Your task to perform on an android device: Open network settings Image 0: 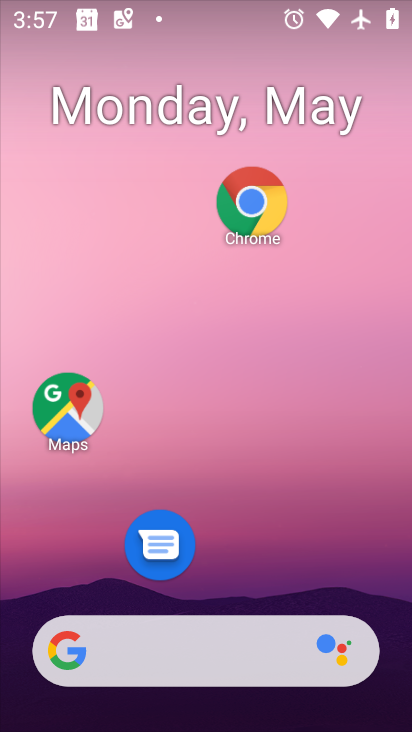
Step 0: drag from (231, 486) to (225, 111)
Your task to perform on an android device: Open network settings Image 1: 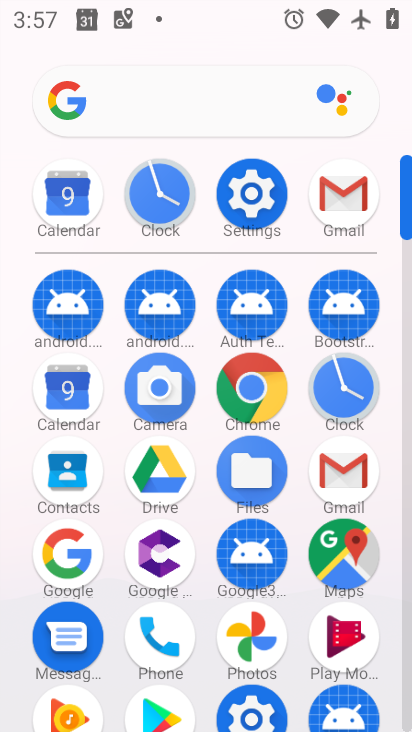
Step 1: click (226, 199)
Your task to perform on an android device: Open network settings Image 2: 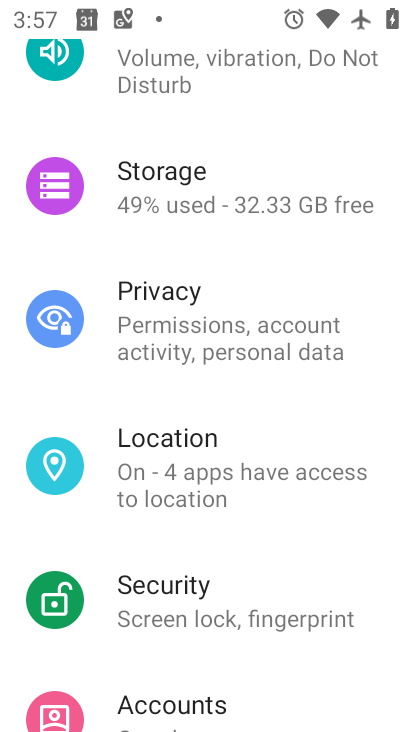
Step 2: drag from (231, 241) to (265, 610)
Your task to perform on an android device: Open network settings Image 3: 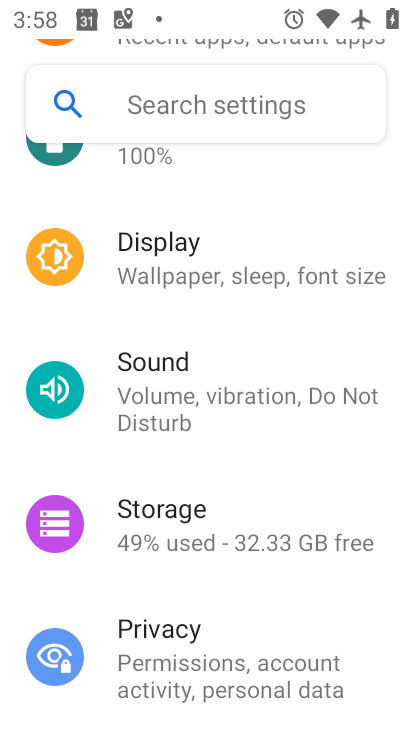
Step 3: drag from (252, 207) to (252, 558)
Your task to perform on an android device: Open network settings Image 4: 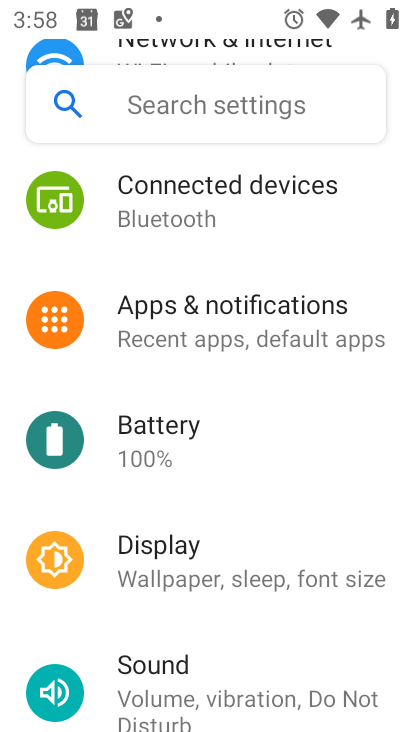
Step 4: drag from (196, 209) to (212, 506)
Your task to perform on an android device: Open network settings Image 5: 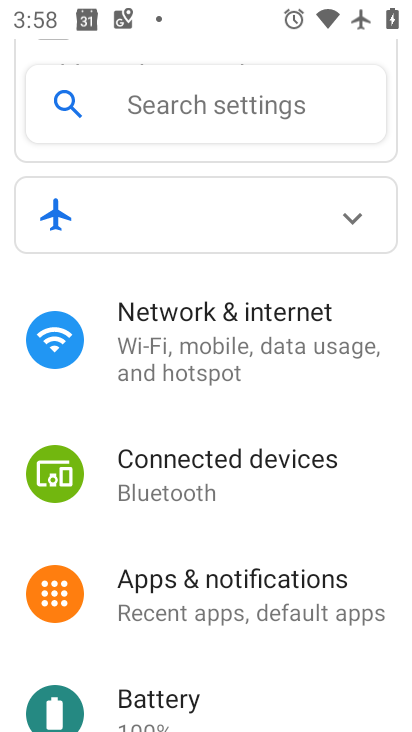
Step 5: click (182, 364)
Your task to perform on an android device: Open network settings Image 6: 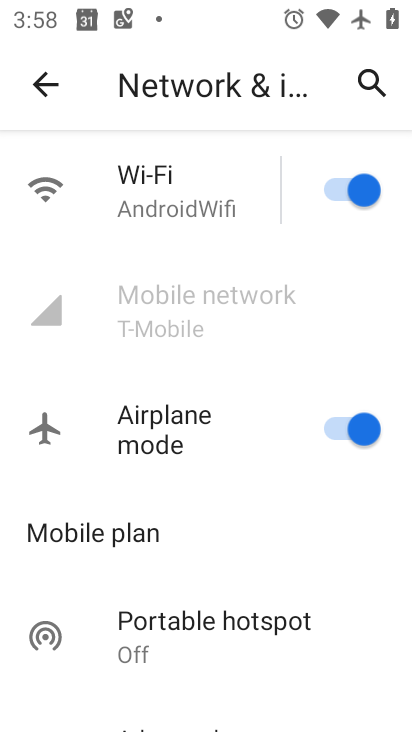
Step 6: drag from (192, 565) to (206, 337)
Your task to perform on an android device: Open network settings Image 7: 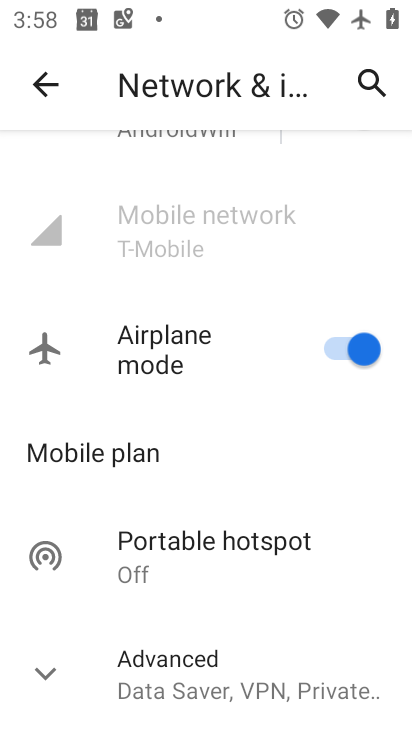
Step 7: click (244, 211)
Your task to perform on an android device: Open network settings Image 8: 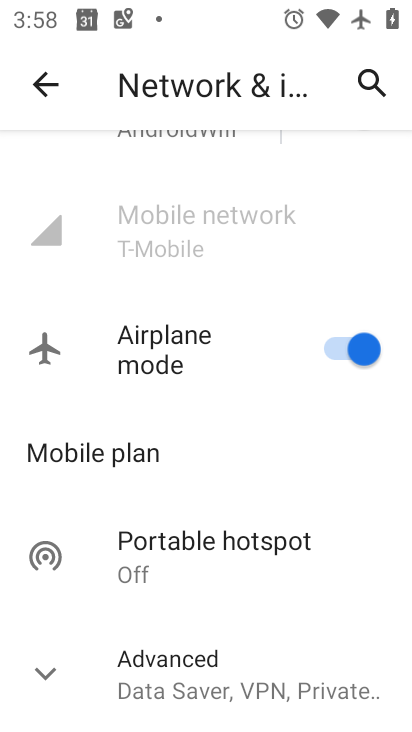
Step 8: task complete